Your task to perform on an android device: toggle airplane mode Image 0: 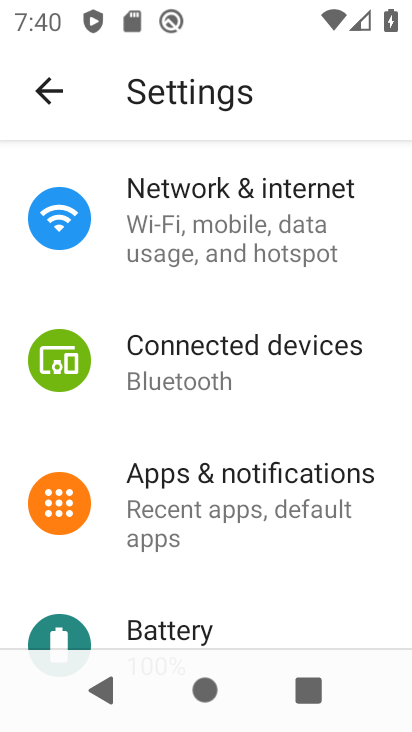
Step 0: click (183, 209)
Your task to perform on an android device: toggle airplane mode Image 1: 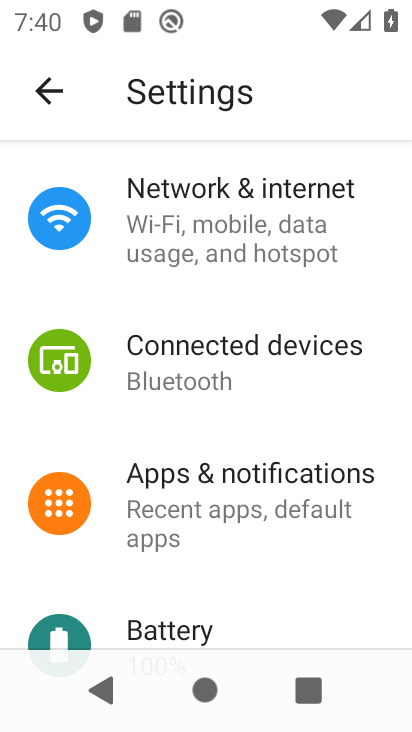
Step 1: click (184, 209)
Your task to perform on an android device: toggle airplane mode Image 2: 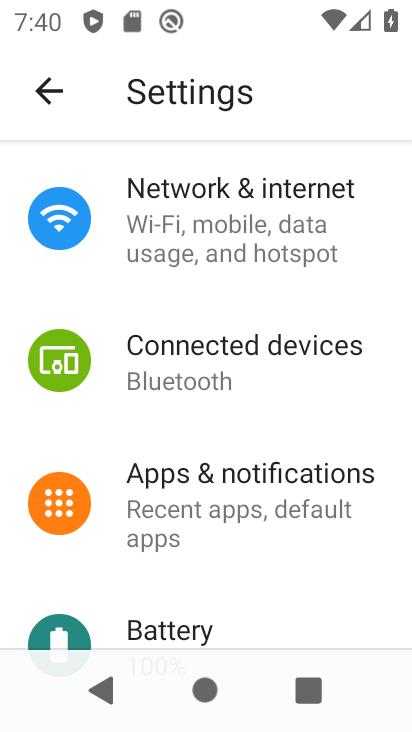
Step 2: click (192, 206)
Your task to perform on an android device: toggle airplane mode Image 3: 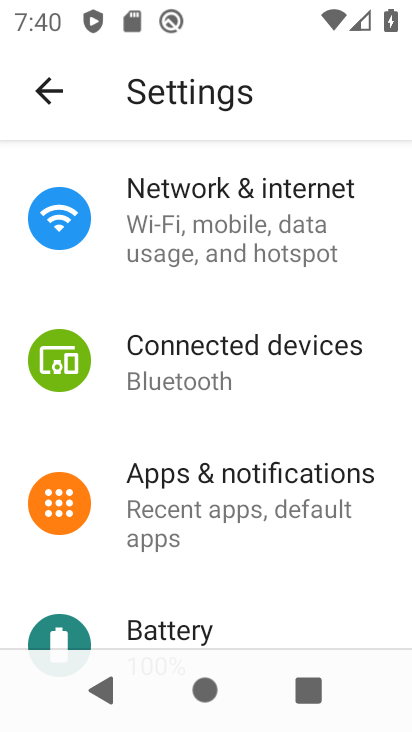
Step 3: click (197, 205)
Your task to perform on an android device: toggle airplane mode Image 4: 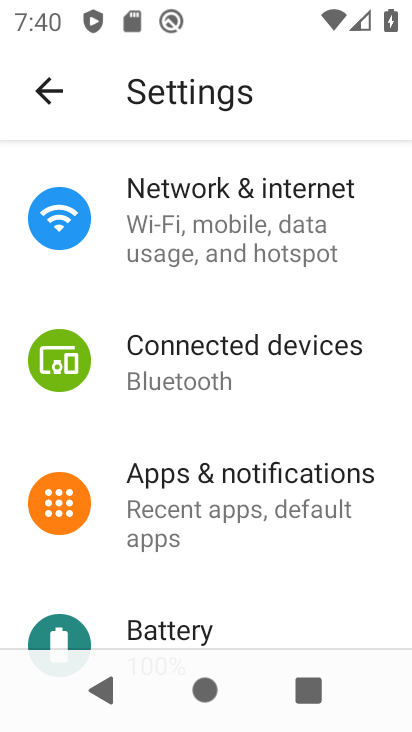
Step 4: click (199, 204)
Your task to perform on an android device: toggle airplane mode Image 5: 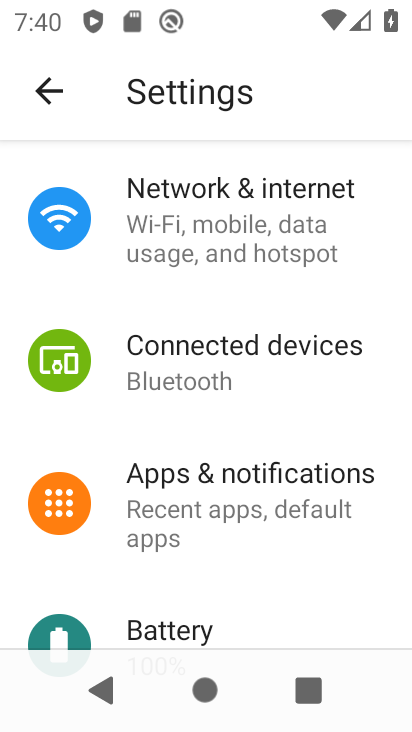
Step 5: click (200, 204)
Your task to perform on an android device: toggle airplane mode Image 6: 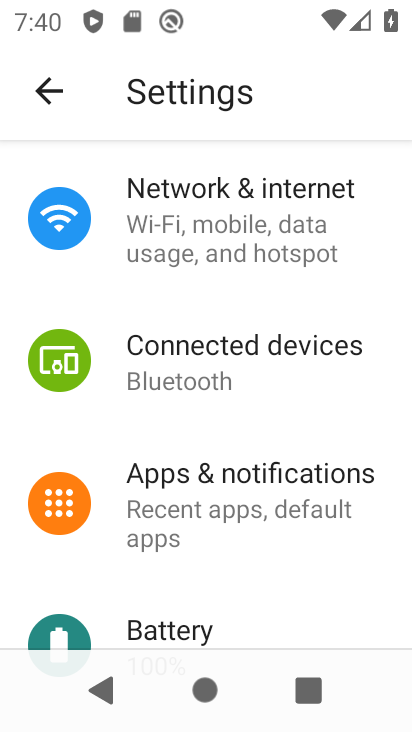
Step 6: click (201, 205)
Your task to perform on an android device: toggle airplane mode Image 7: 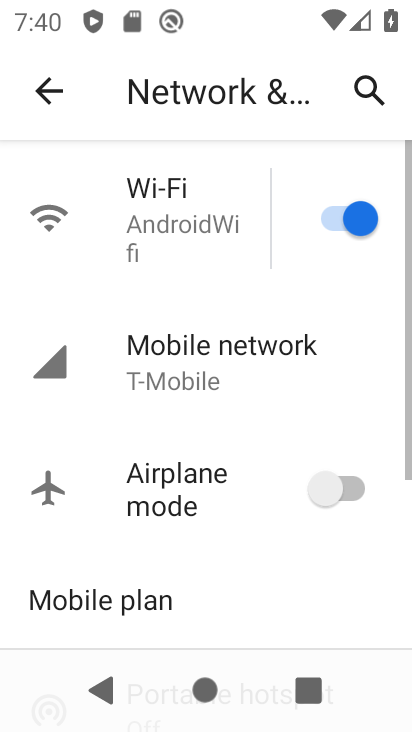
Step 7: click (217, 206)
Your task to perform on an android device: toggle airplane mode Image 8: 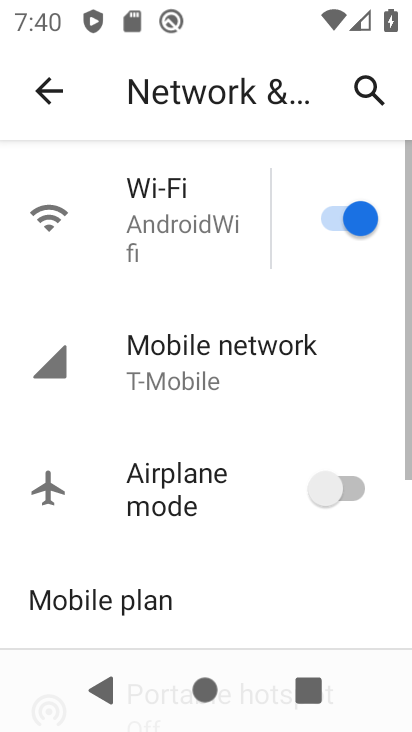
Step 8: click (246, 236)
Your task to perform on an android device: toggle airplane mode Image 9: 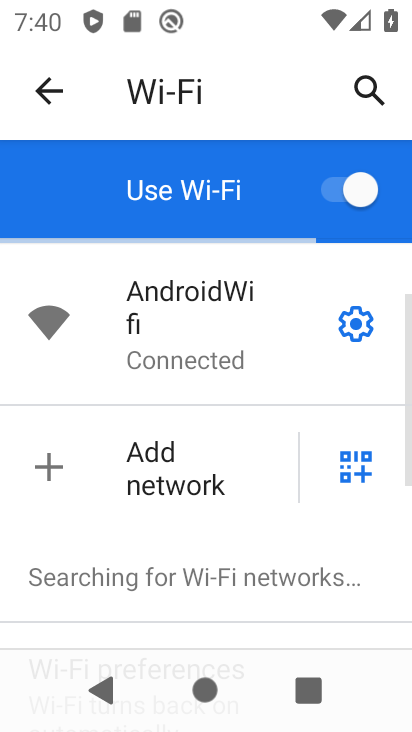
Step 9: click (55, 92)
Your task to perform on an android device: toggle airplane mode Image 10: 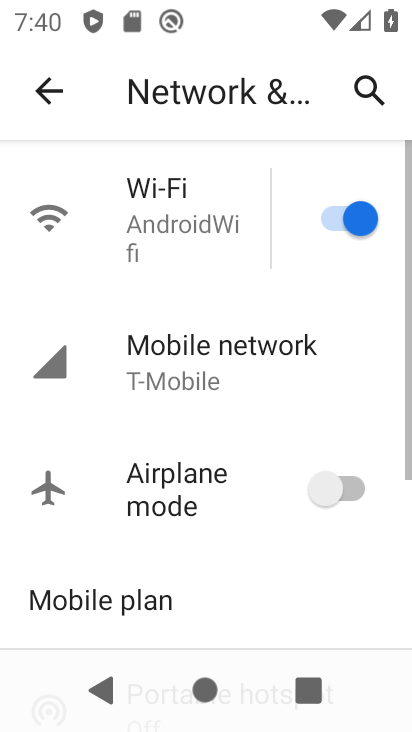
Step 10: click (328, 483)
Your task to perform on an android device: toggle airplane mode Image 11: 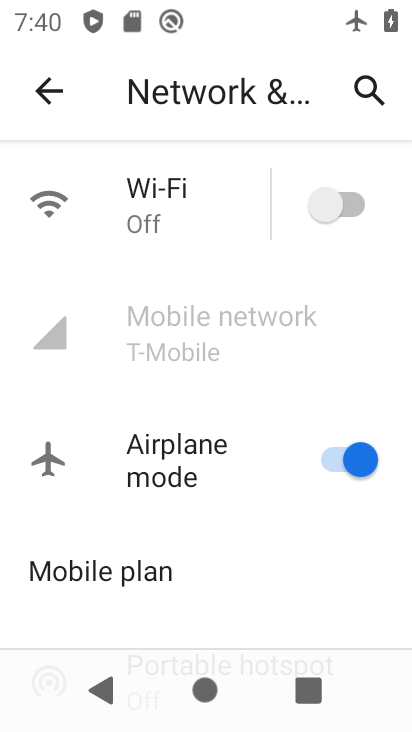
Step 11: task complete